Your task to perform on an android device: What's the weather? Image 0: 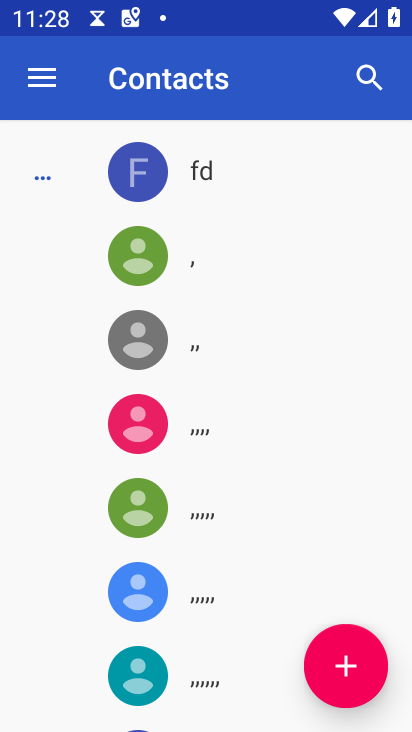
Step 0: press home button
Your task to perform on an android device: What's the weather? Image 1: 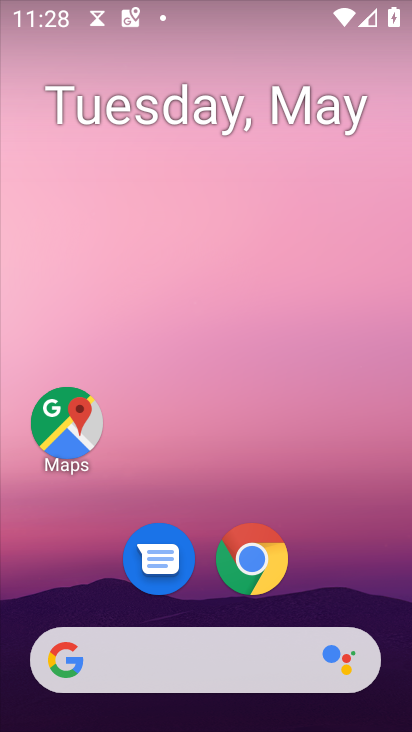
Step 1: click (65, 661)
Your task to perform on an android device: What's the weather? Image 2: 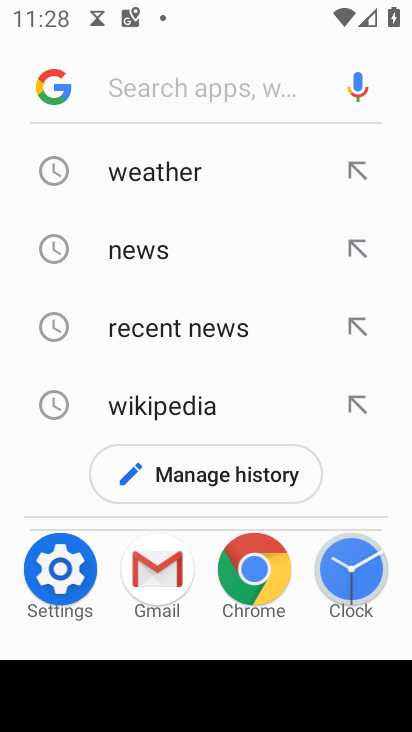
Step 2: click (69, 97)
Your task to perform on an android device: What's the weather? Image 3: 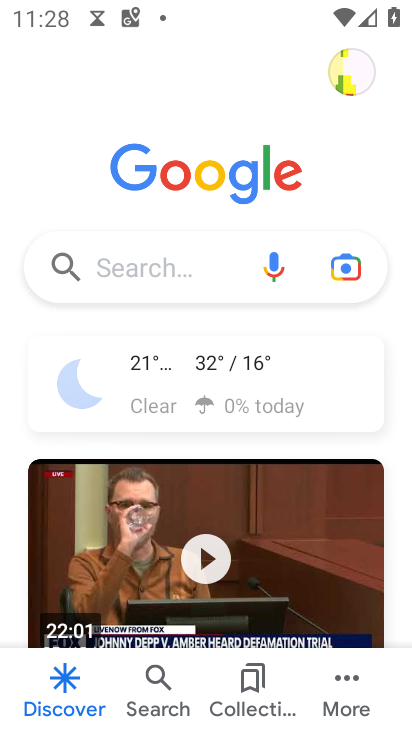
Step 3: click (199, 418)
Your task to perform on an android device: What's the weather? Image 4: 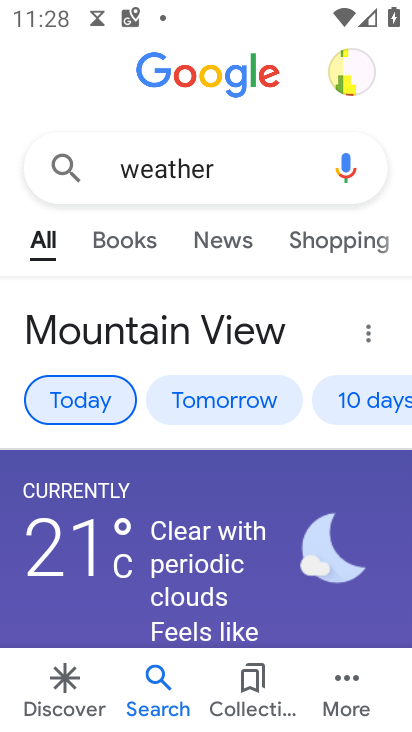
Step 4: task complete